Your task to perform on an android device: turn on improve location accuracy Image 0: 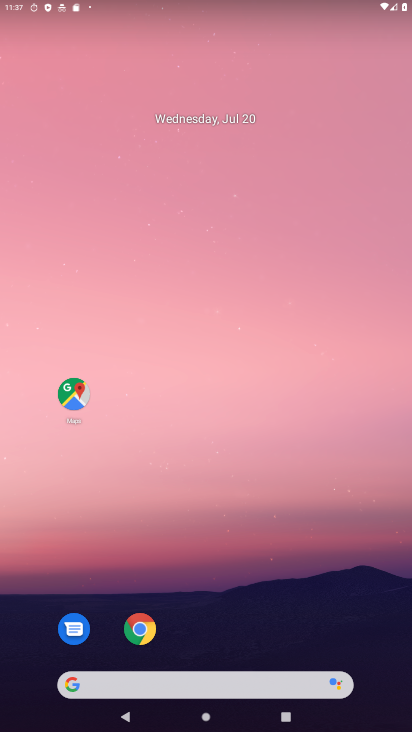
Step 0: drag from (248, 700) to (340, 3)
Your task to perform on an android device: turn on improve location accuracy Image 1: 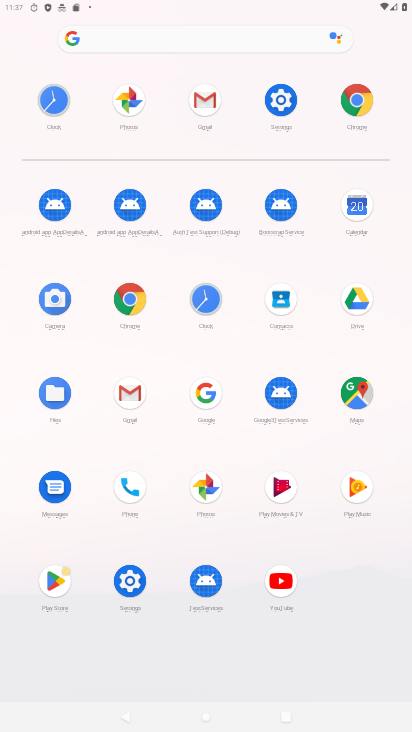
Step 1: click (277, 97)
Your task to perform on an android device: turn on improve location accuracy Image 2: 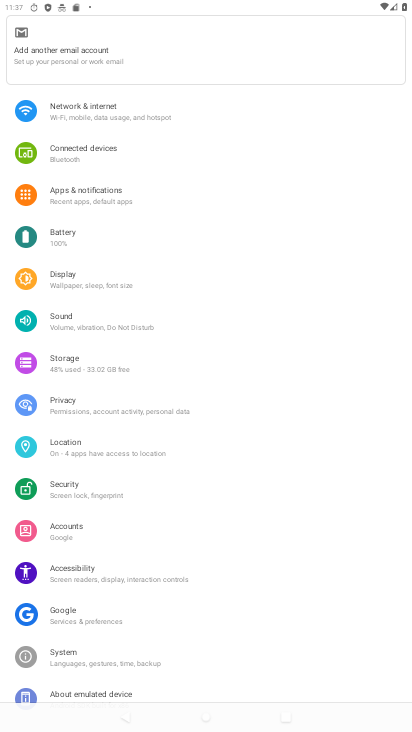
Step 2: click (87, 443)
Your task to perform on an android device: turn on improve location accuracy Image 3: 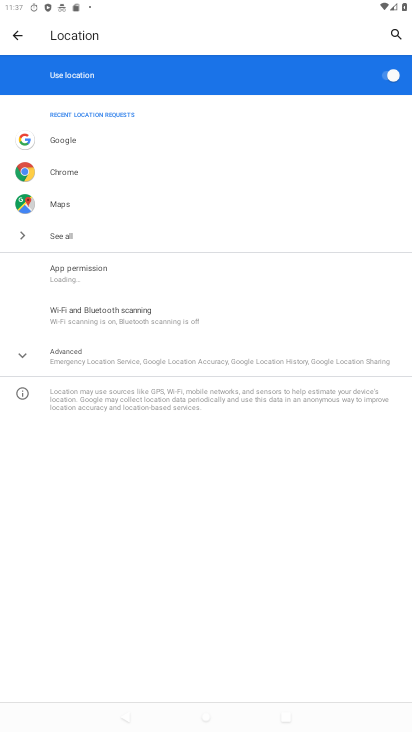
Step 3: click (153, 352)
Your task to perform on an android device: turn on improve location accuracy Image 4: 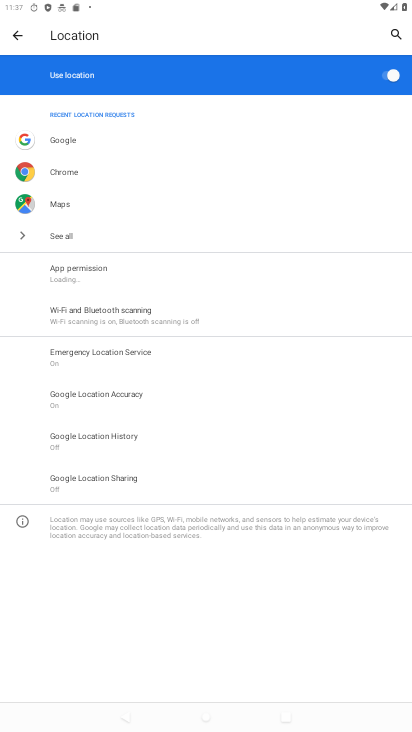
Step 4: click (145, 391)
Your task to perform on an android device: turn on improve location accuracy Image 5: 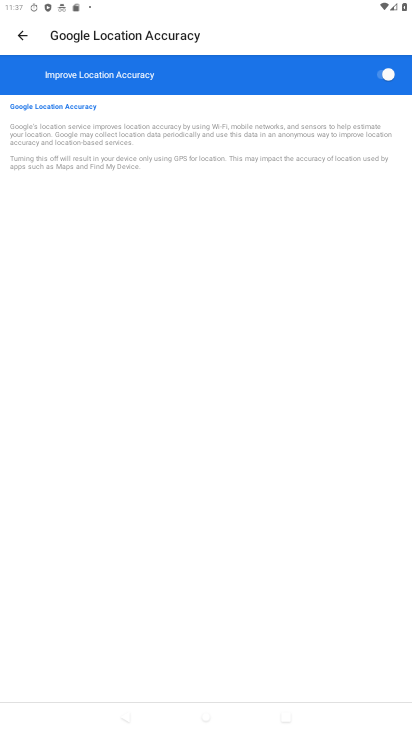
Step 5: task complete